Your task to perform on an android device: When is my next appointment? Image 0: 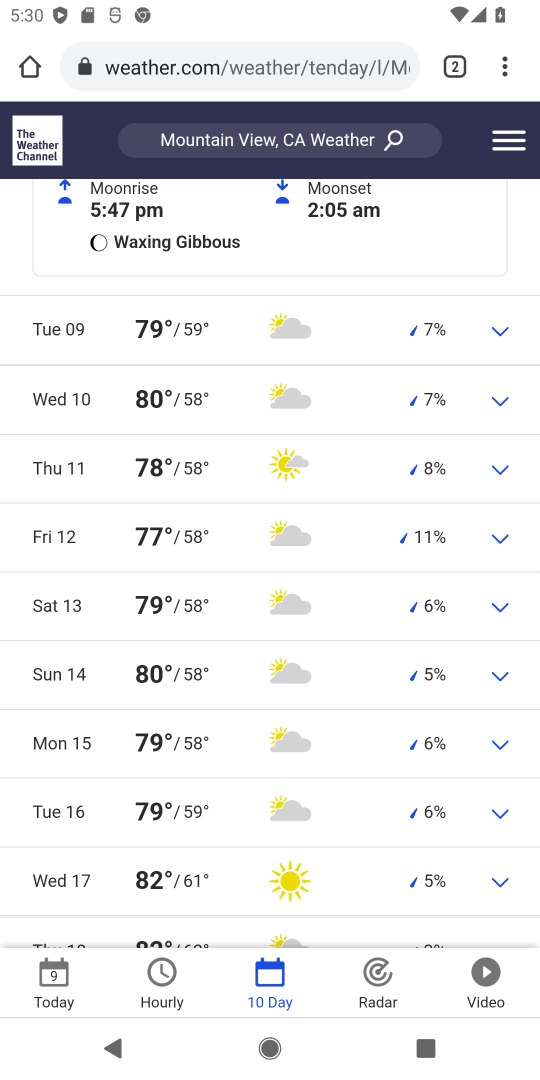
Step 0: press home button
Your task to perform on an android device: When is my next appointment? Image 1: 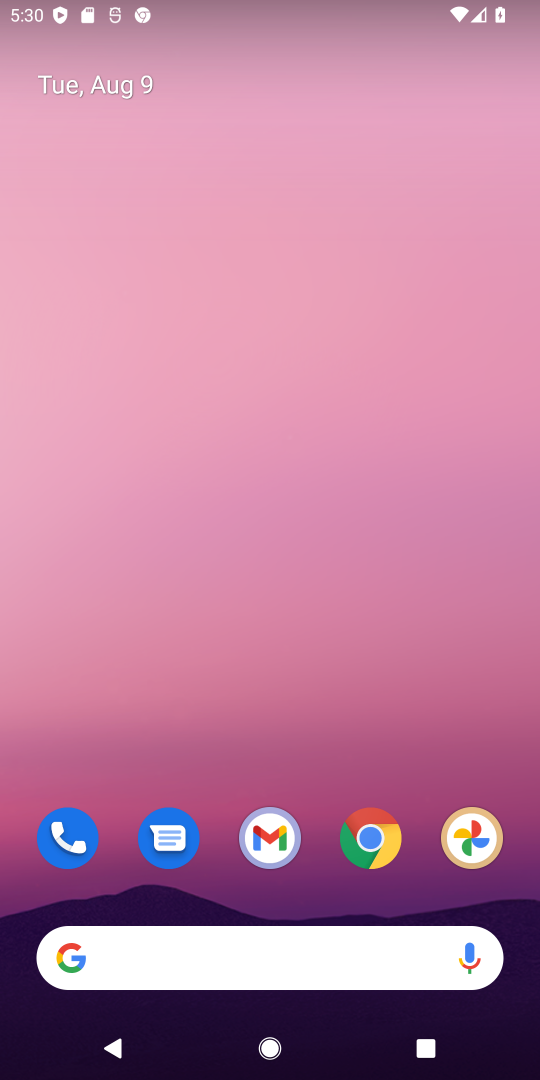
Step 1: drag from (326, 761) to (287, 222)
Your task to perform on an android device: When is my next appointment? Image 2: 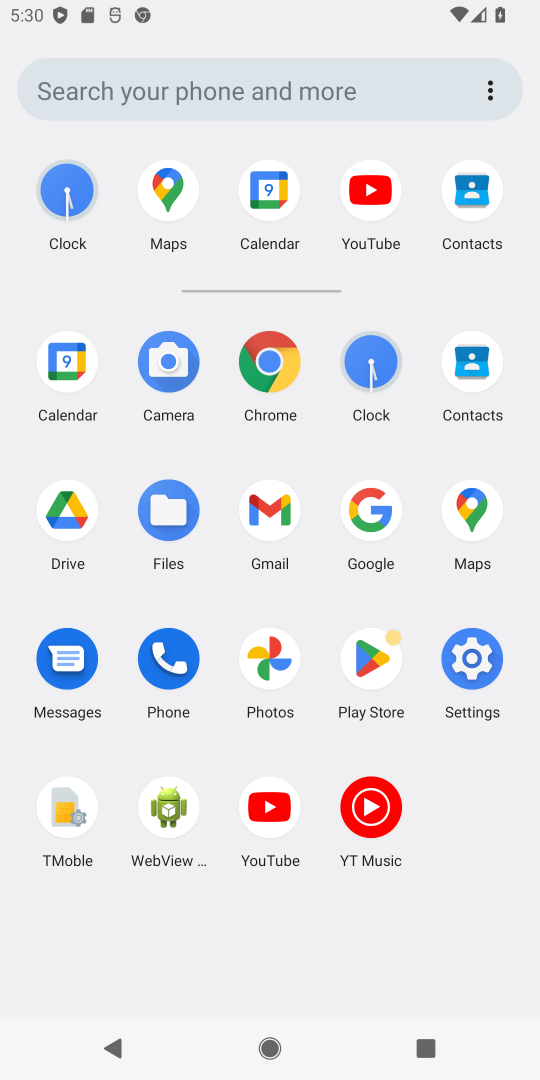
Step 2: click (277, 191)
Your task to perform on an android device: When is my next appointment? Image 3: 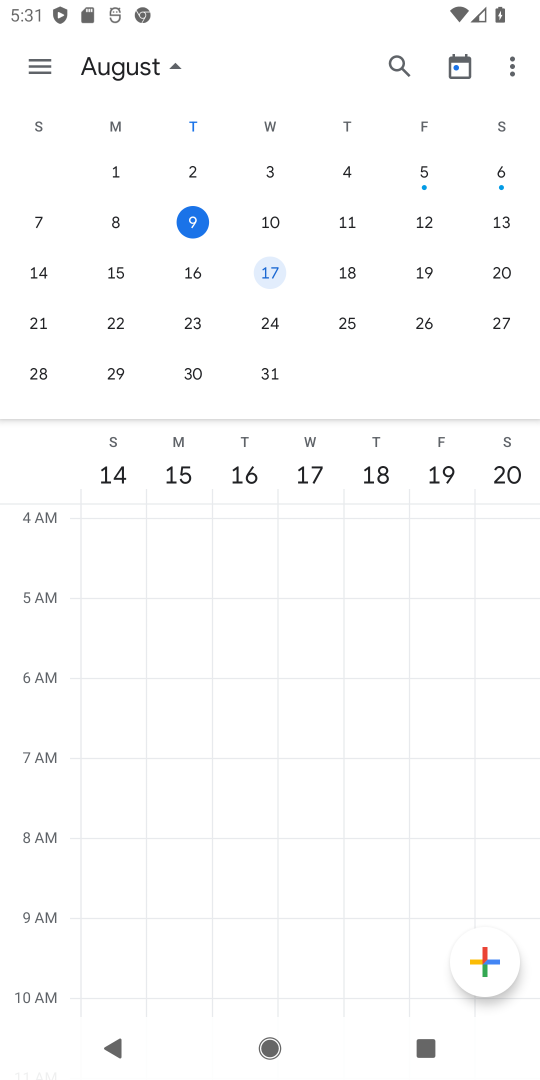
Step 3: click (50, 52)
Your task to perform on an android device: When is my next appointment? Image 4: 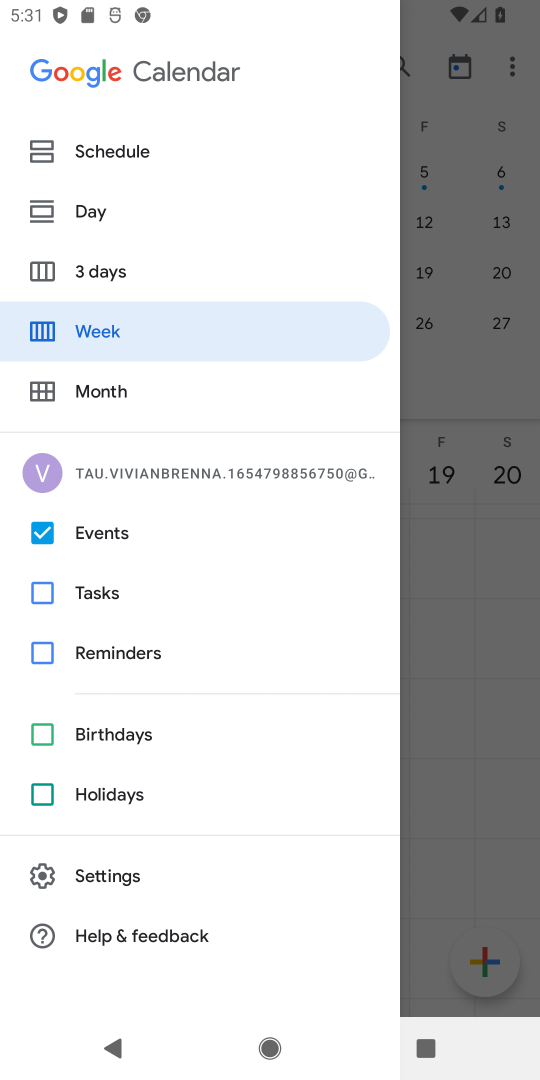
Step 4: click (126, 147)
Your task to perform on an android device: When is my next appointment? Image 5: 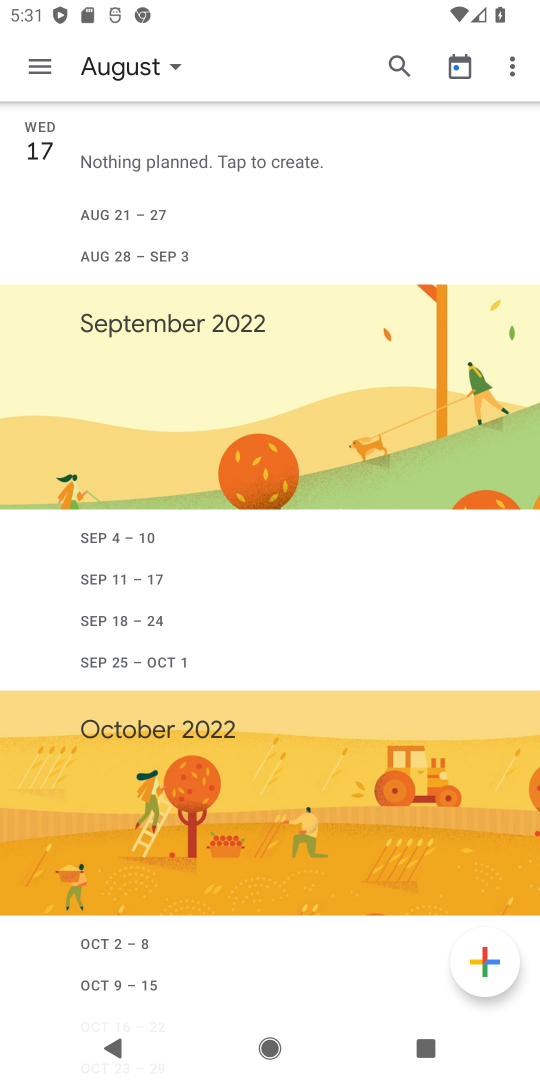
Step 5: task complete